Your task to perform on an android device: turn off translation in the chrome app Image 0: 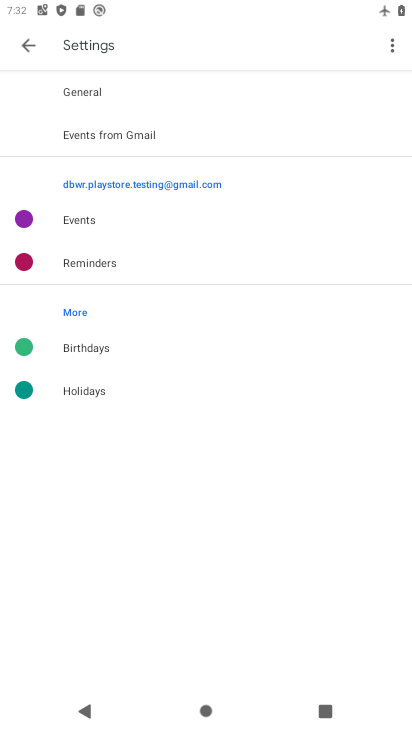
Step 0: press home button
Your task to perform on an android device: turn off translation in the chrome app Image 1: 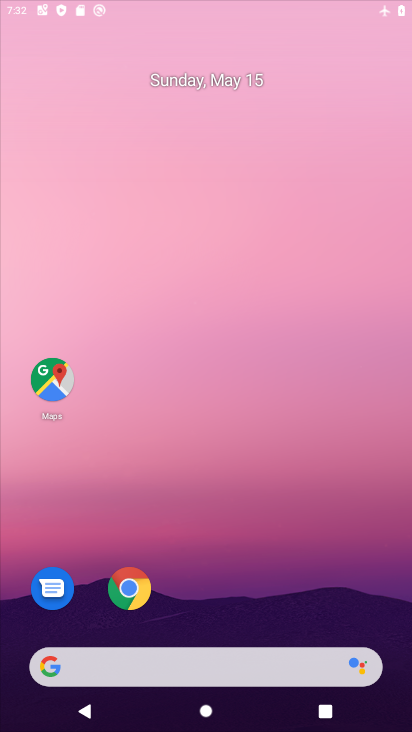
Step 1: drag from (356, 631) to (263, 2)
Your task to perform on an android device: turn off translation in the chrome app Image 2: 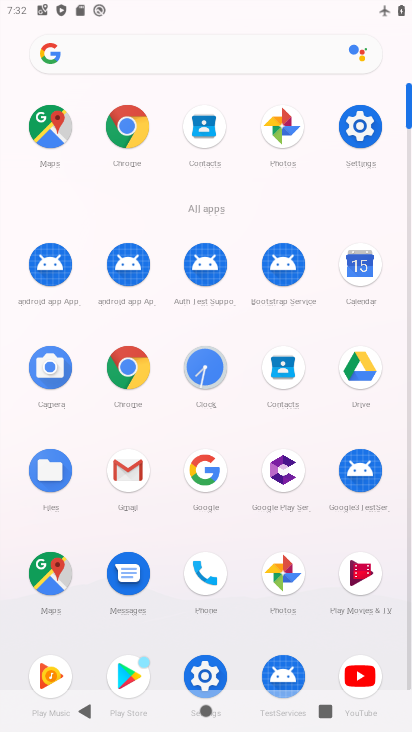
Step 2: click (126, 381)
Your task to perform on an android device: turn off translation in the chrome app Image 3: 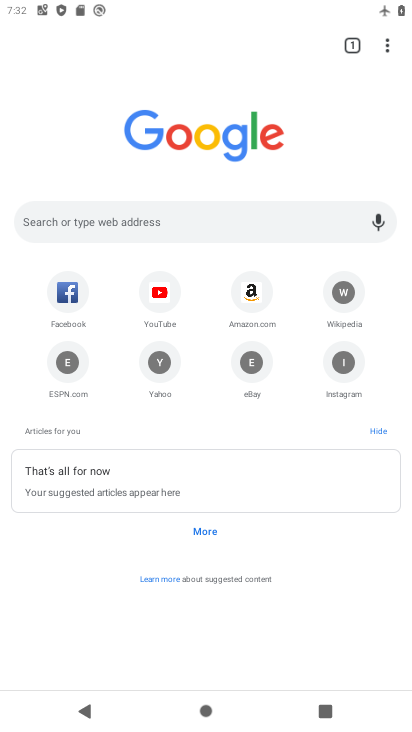
Step 3: click (383, 46)
Your task to perform on an android device: turn off translation in the chrome app Image 4: 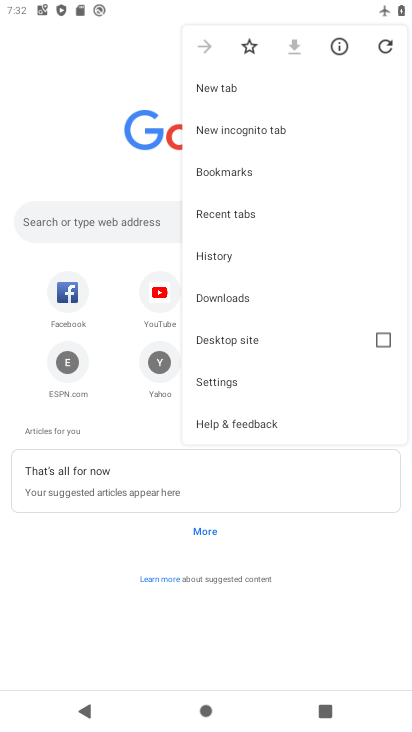
Step 4: click (250, 381)
Your task to perform on an android device: turn off translation in the chrome app Image 5: 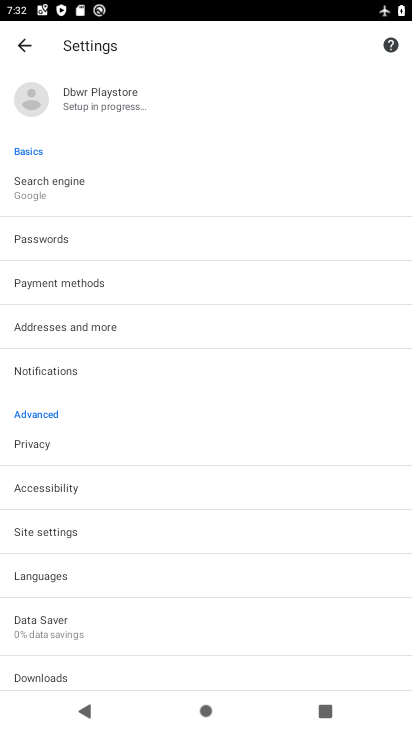
Step 5: click (93, 584)
Your task to perform on an android device: turn off translation in the chrome app Image 6: 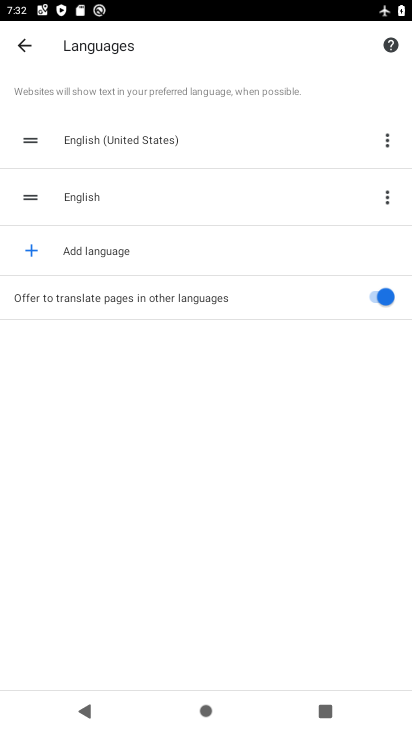
Step 6: click (335, 294)
Your task to perform on an android device: turn off translation in the chrome app Image 7: 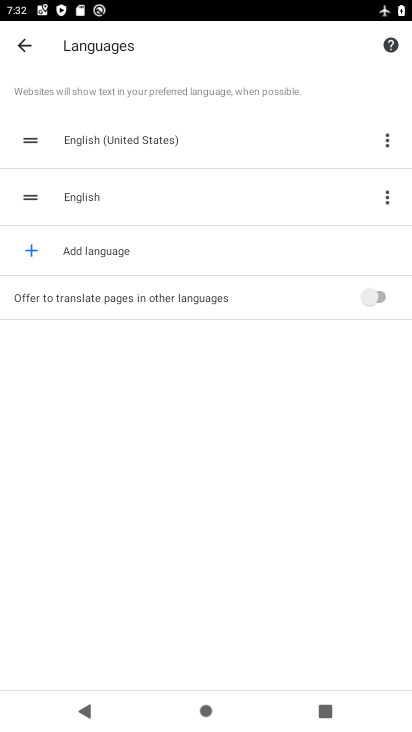
Step 7: task complete